Your task to perform on an android device: open device folders in google photos Image 0: 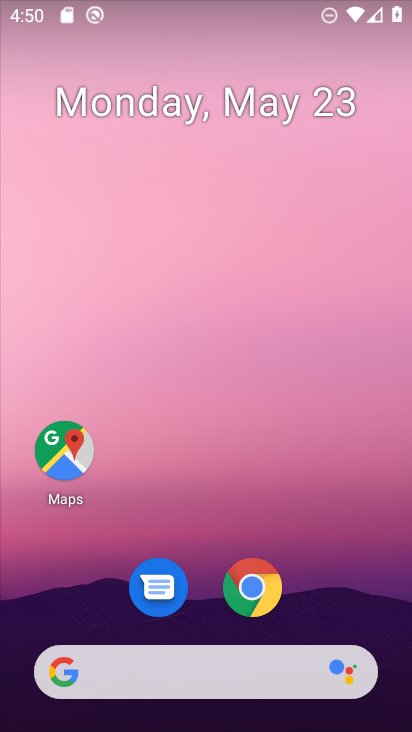
Step 0: drag from (207, 623) to (252, 5)
Your task to perform on an android device: open device folders in google photos Image 1: 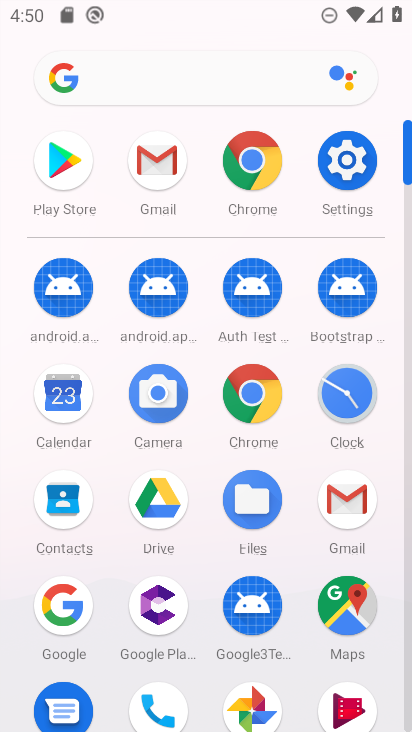
Step 1: drag from (242, 565) to (268, 333)
Your task to perform on an android device: open device folders in google photos Image 2: 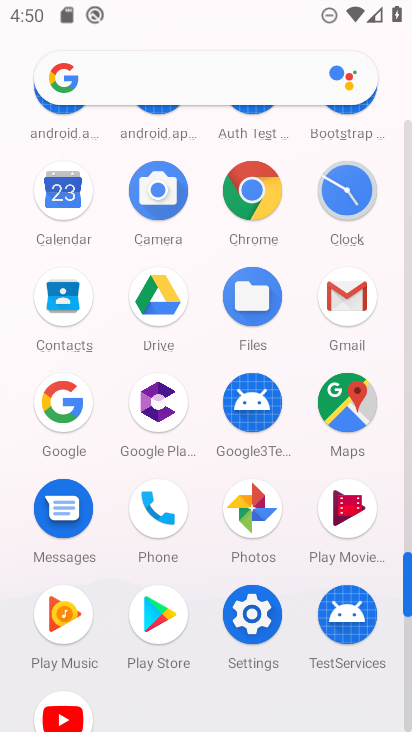
Step 2: click (253, 529)
Your task to perform on an android device: open device folders in google photos Image 3: 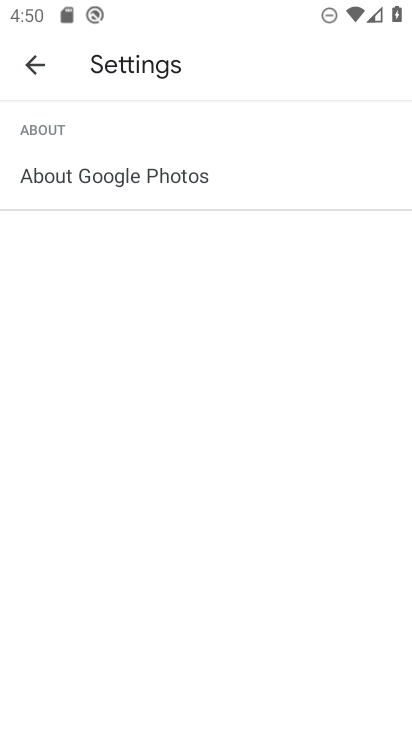
Step 3: click (42, 68)
Your task to perform on an android device: open device folders in google photos Image 4: 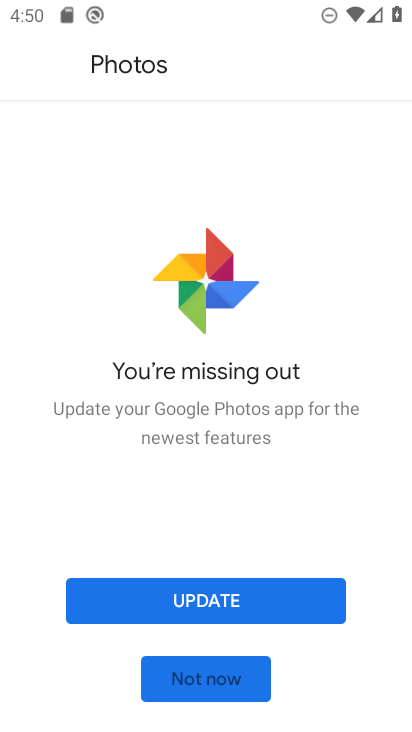
Step 4: click (213, 680)
Your task to perform on an android device: open device folders in google photos Image 5: 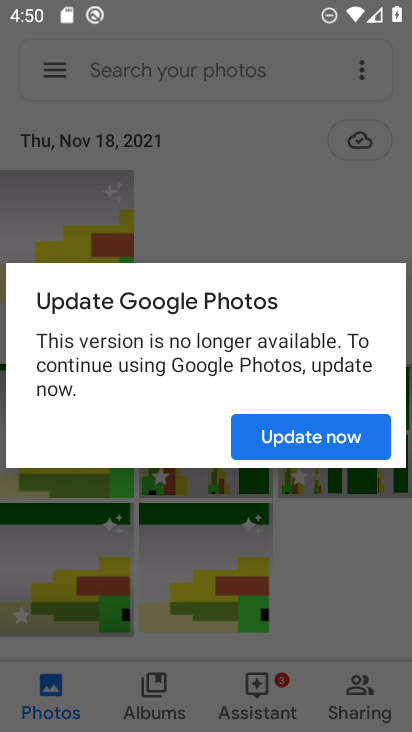
Step 5: click (311, 437)
Your task to perform on an android device: open device folders in google photos Image 6: 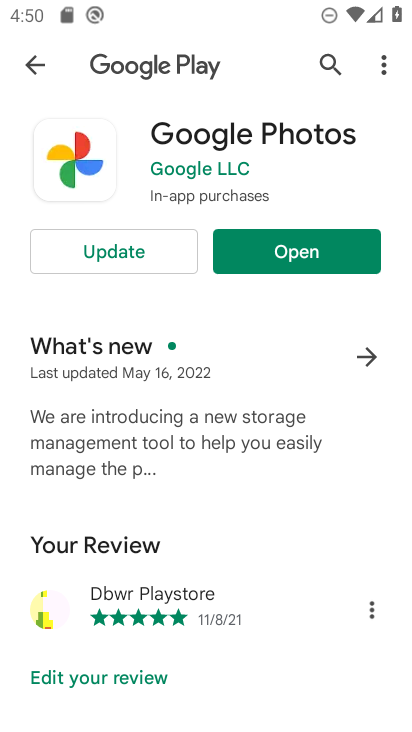
Step 6: click (271, 252)
Your task to perform on an android device: open device folders in google photos Image 7: 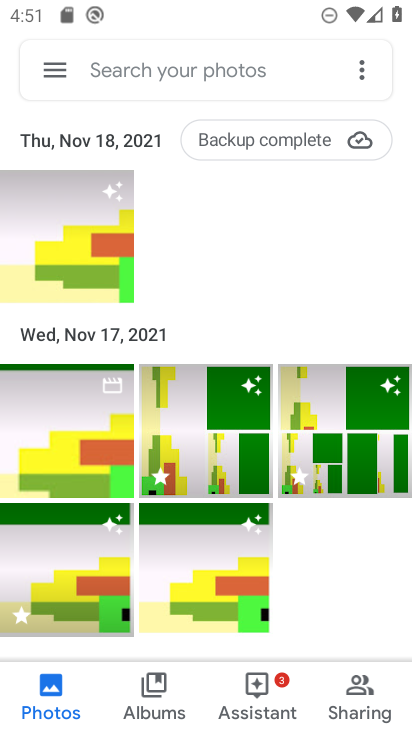
Step 7: click (58, 69)
Your task to perform on an android device: open device folders in google photos Image 8: 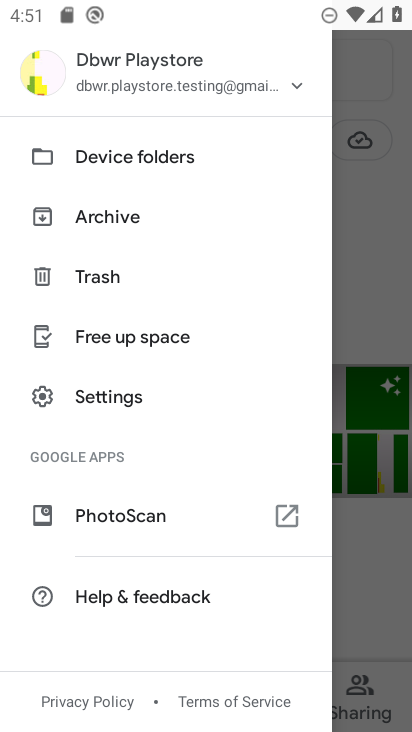
Step 8: click (128, 172)
Your task to perform on an android device: open device folders in google photos Image 9: 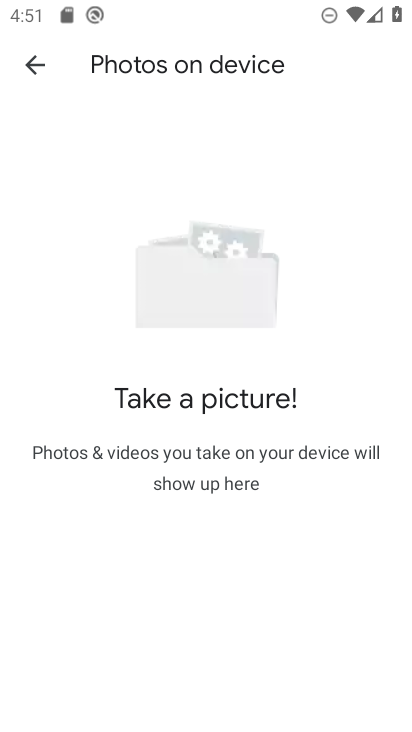
Step 9: task complete